Your task to perform on an android device: manage bookmarks in the chrome app Image 0: 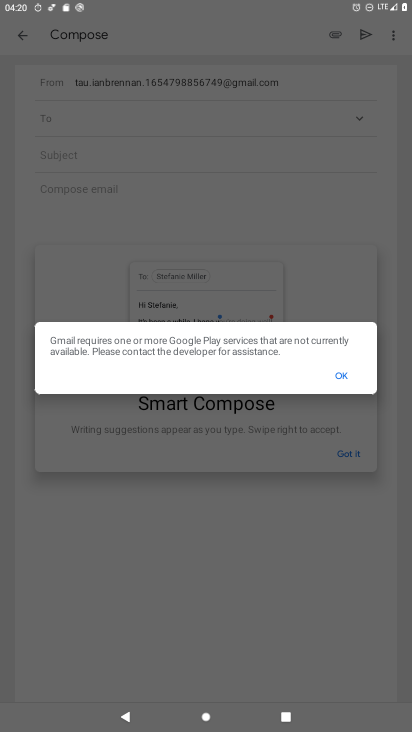
Step 0: press home button
Your task to perform on an android device: manage bookmarks in the chrome app Image 1: 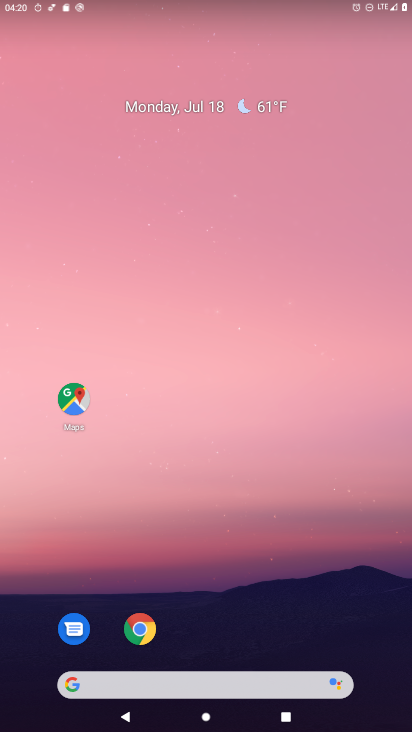
Step 1: click (139, 631)
Your task to perform on an android device: manage bookmarks in the chrome app Image 2: 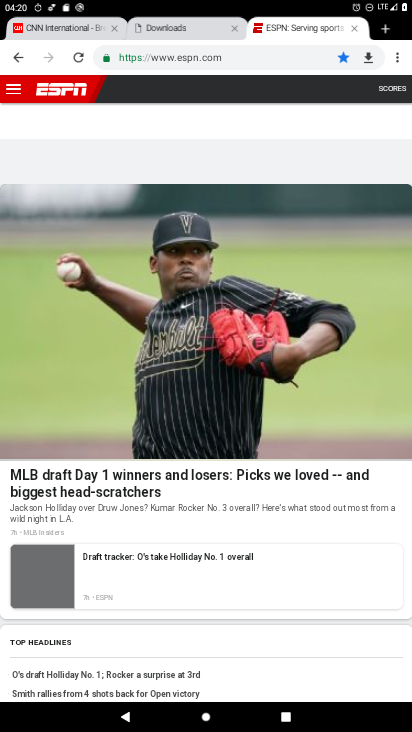
Step 2: click (397, 57)
Your task to perform on an android device: manage bookmarks in the chrome app Image 3: 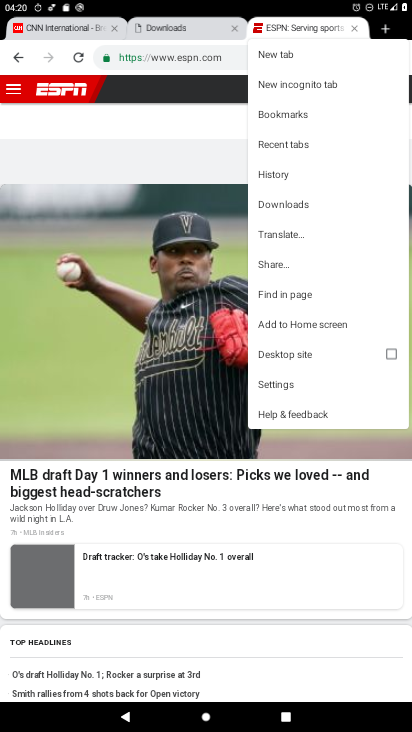
Step 3: click (284, 118)
Your task to perform on an android device: manage bookmarks in the chrome app Image 4: 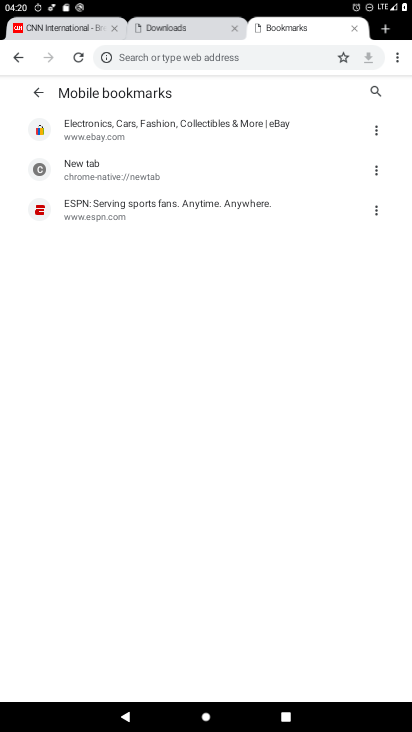
Step 4: click (380, 167)
Your task to perform on an android device: manage bookmarks in the chrome app Image 5: 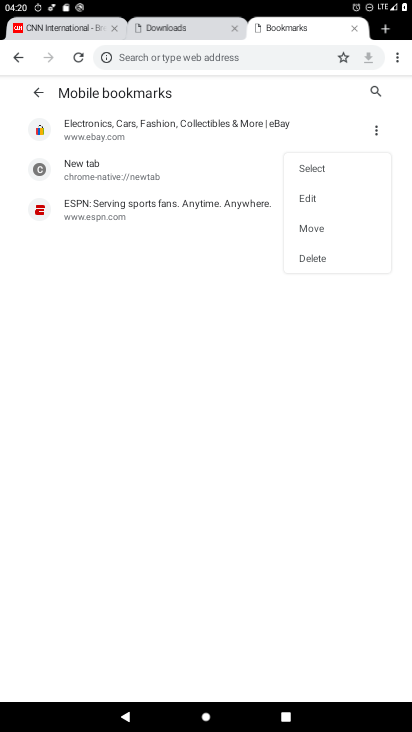
Step 5: click (317, 206)
Your task to perform on an android device: manage bookmarks in the chrome app Image 6: 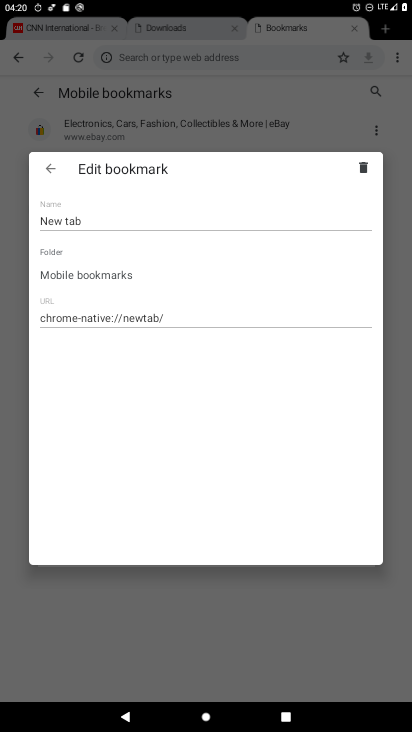
Step 6: click (363, 165)
Your task to perform on an android device: manage bookmarks in the chrome app Image 7: 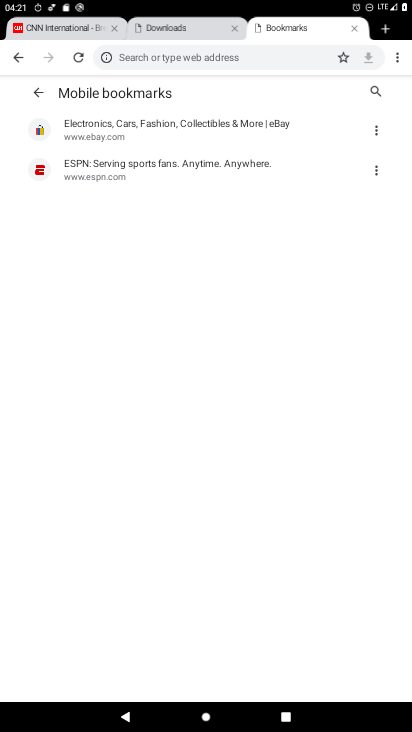
Step 7: task complete